Your task to perform on an android device: check out phone information Image 0: 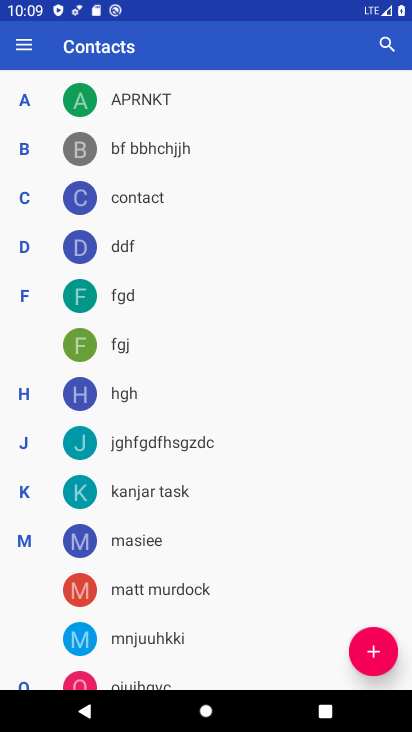
Step 0: press home button
Your task to perform on an android device: check out phone information Image 1: 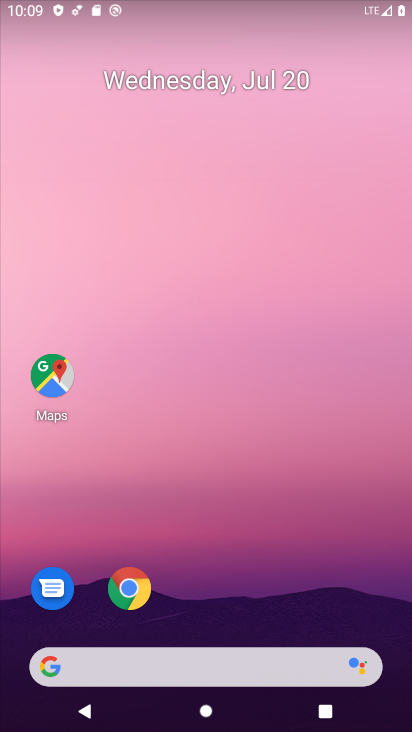
Step 1: drag from (236, 634) to (243, 1)
Your task to perform on an android device: check out phone information Image 2: 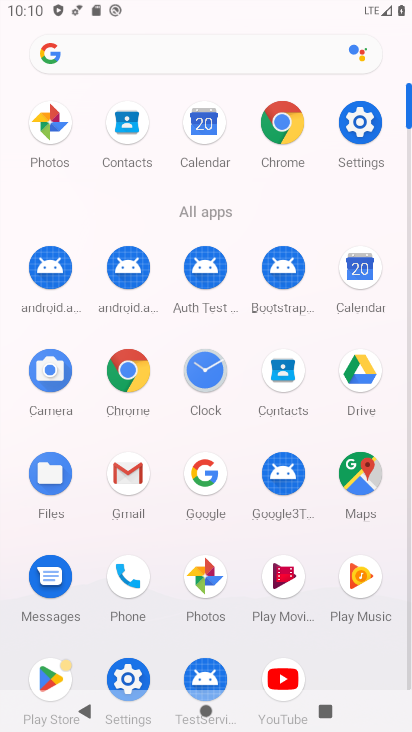
Step 2: click (131, 683)
Your task to perform on an android device: check out phone information Image 3: 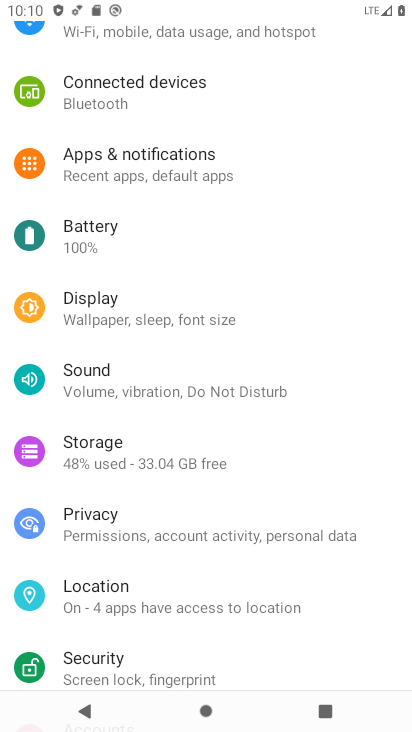
Step 3: drag from (156, 607) to (219, 141)
Your task to perform on an android device: check out phone information Image 4: 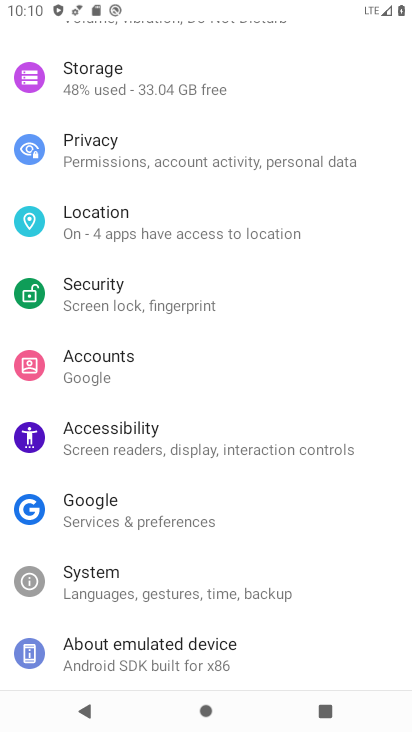
Step 4: click (156, 654)
Your task to perform on an android device: check out phone information Image 5: 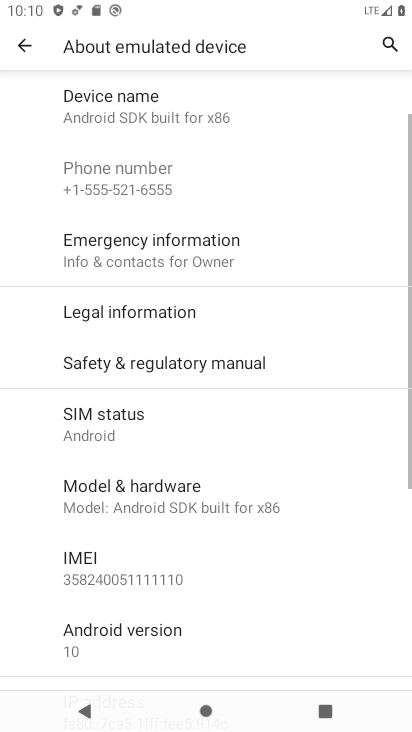
Step 5: task complete